Your task to perform on an android device: What's on my calendar tomorrow? Image 0: 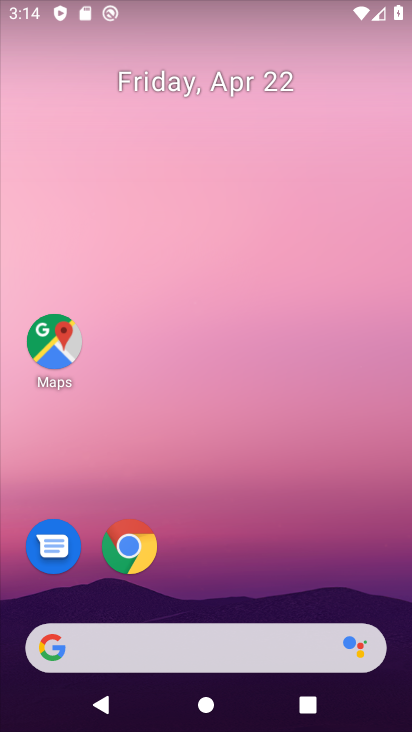
Step 0: drag from (228, 513) to (261, 89)
Your task to perform on an android device: What's on my calendar tomorrow? Image 1: 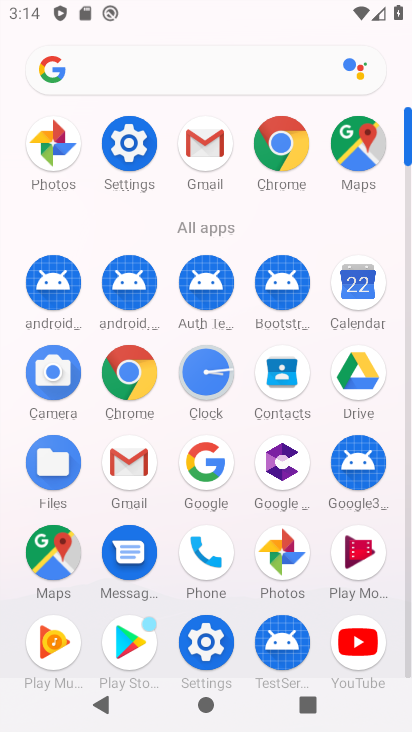
Step 1: click (369, 297)
Your task to perform on an android device: What's on my calendar tomorrow? Image 2: 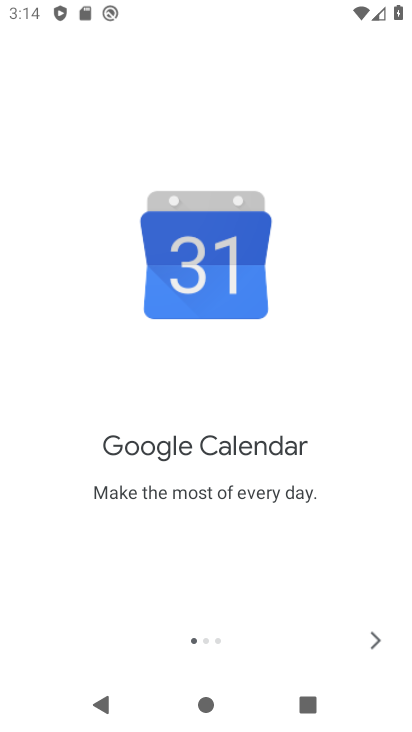
Step 2: click (375, 635)
Your task to perform on an android device: What's on my calendar tomorrow? Image 3: 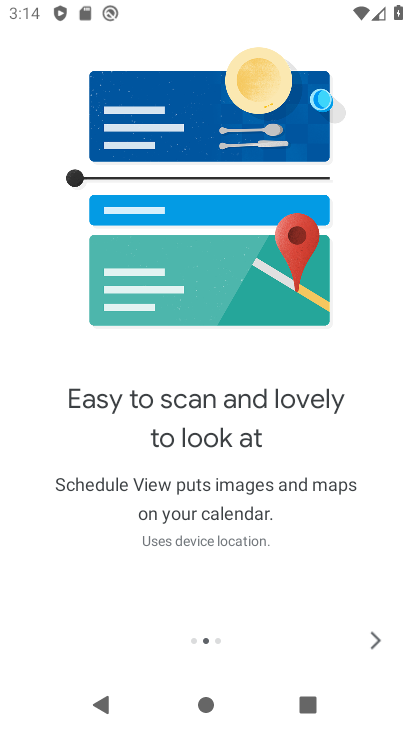
Step 3: click (375, 635)
Your task to perform on an android device: What's on my calendar tomorrow? Image 4: 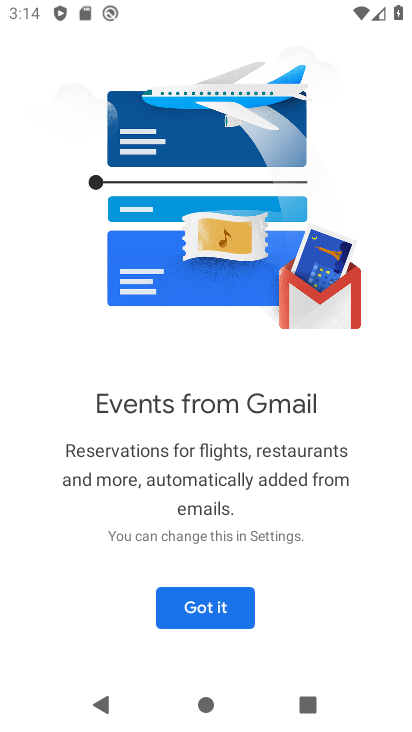
Step 4: click (205, 617)
Your task to perform on an android device: What's on my calendar tomorrow? Image 5: 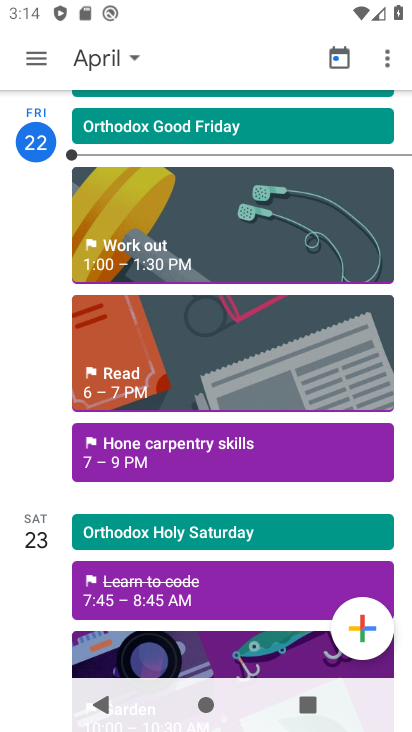
Step 5: click (128, 66)
Your task to perform on an android device: What's on my calendar tomorrow? Image 6: 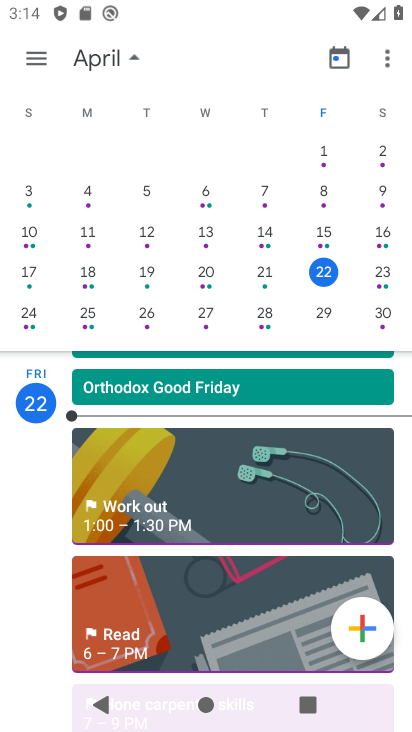
Step 6: click (379, 282)
Your task to perform on an android device: What's on my calendar tomorrow? Image 7: 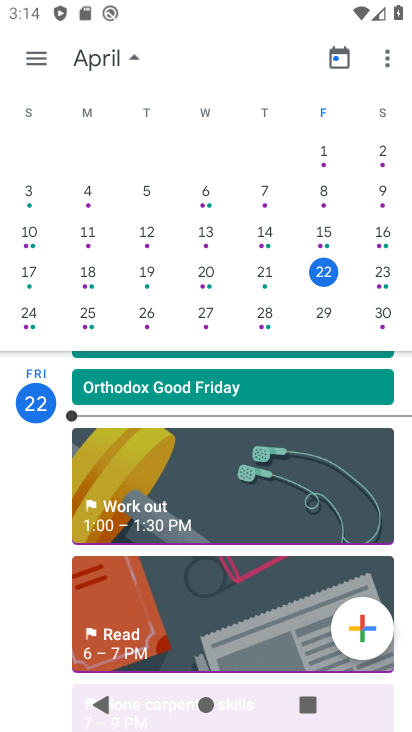
Step 7: click (382, 287)
Your task to perform on an android device: What's on my calendar tomorrow? Image 8: 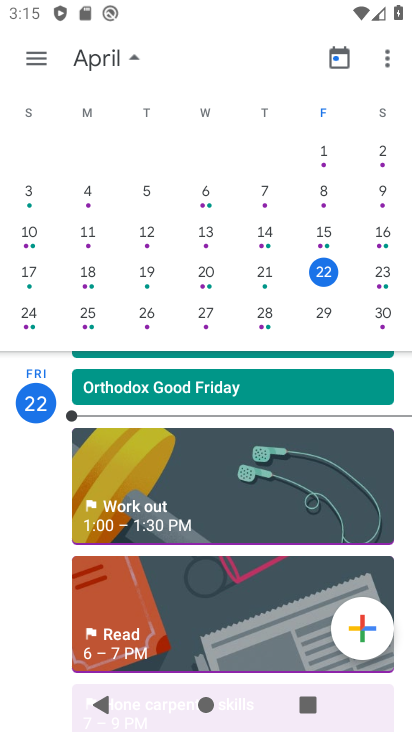
Step 8: click (381, 285)
Your task to perform on an android device: What's on my calendar tomorrow? Image 9: 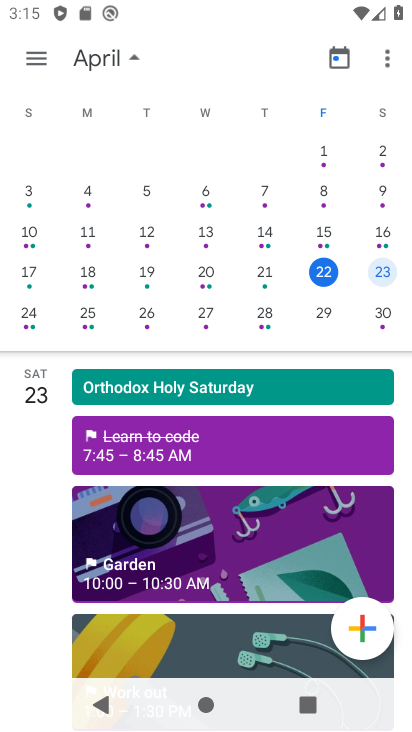
Step 9: task complete